Your task to perform on an android device: open a bookmark in the chrome app Image 0: 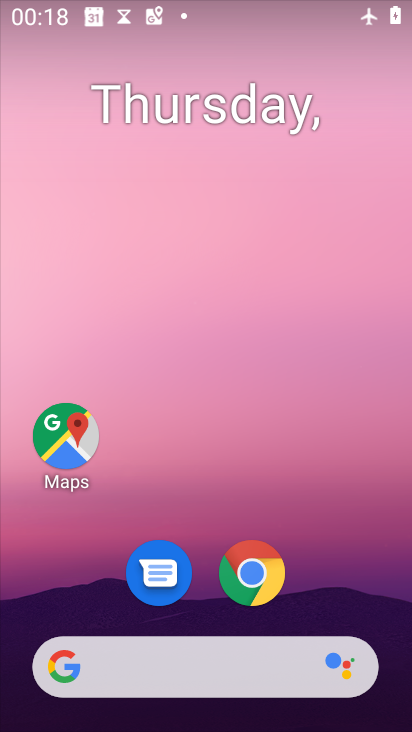
Step 0: click (249, 576)
Your task to perform on an android device: open a bookmark in the chrome app Image 1: 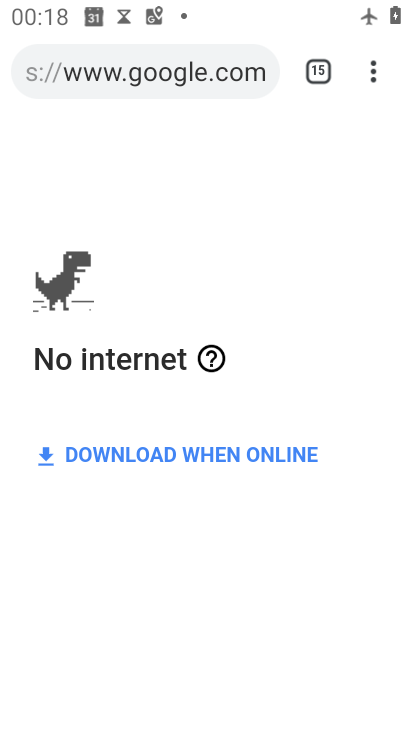
Step 1: click (383, 61)
Your task to perform on an android device: open a bookmark in the chrome app Image 2: 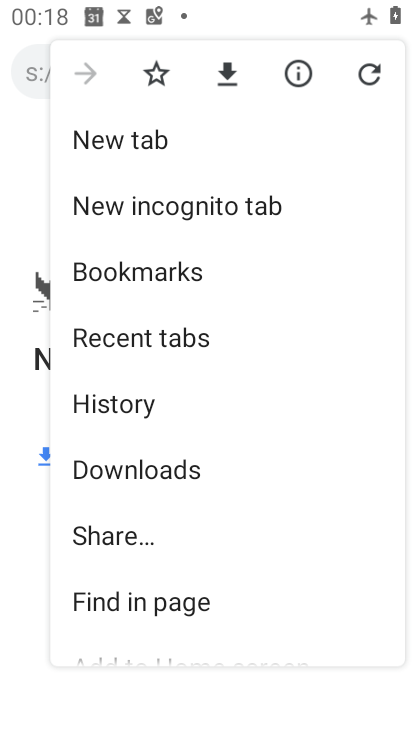
Step 2: click (200, 277)
Your task to perform on an android device: open a bookmark in the chrome app Image 3: 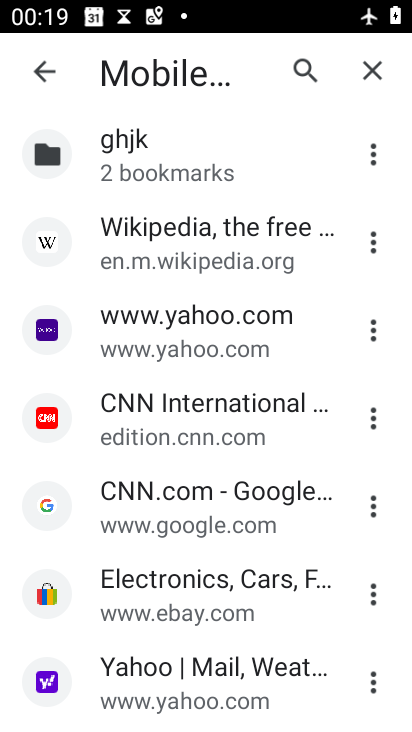
Step 3: task complete